Your task to perform on an android device: turn off smart reply in the gmail app Image 0: 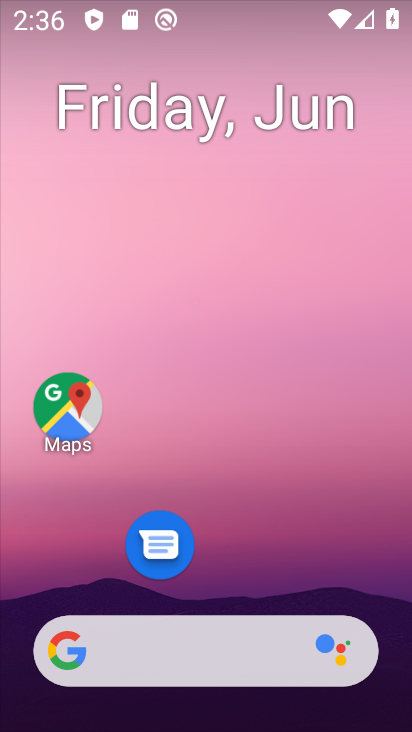
Step 0: drag from (247, 535) to (375, 58)
Your task to perform on an android device: turn off smart reply in the gmail app Image 1: 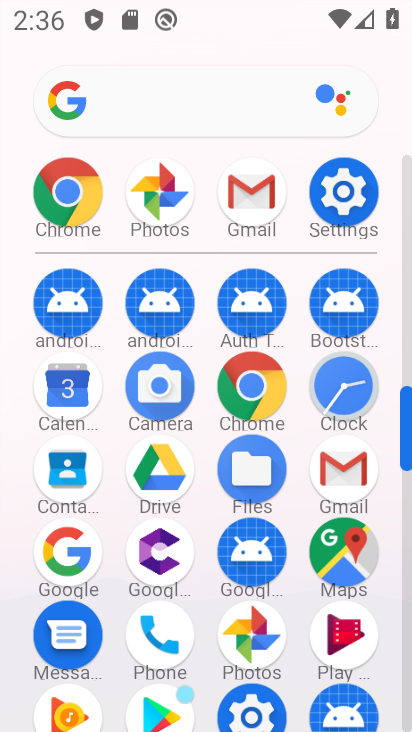
Step 1: click (339, 475)
Your task to perform on an android device: turn off smart reply in the gmail app Image 2: 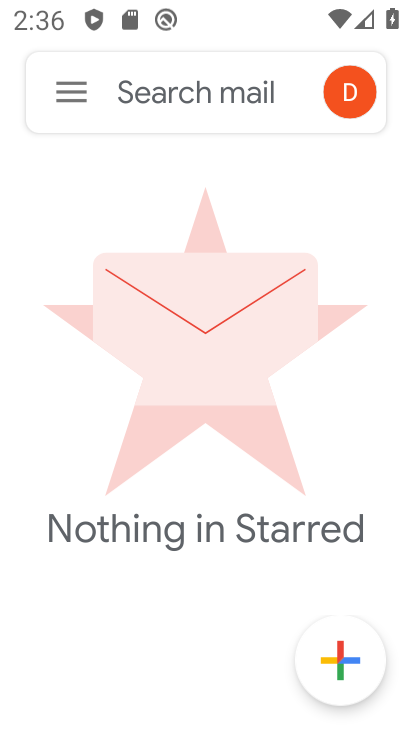
Step 2: click (58, 108)
Your task to perform on an android device: turn off smart reply in the gmail app Image 3: 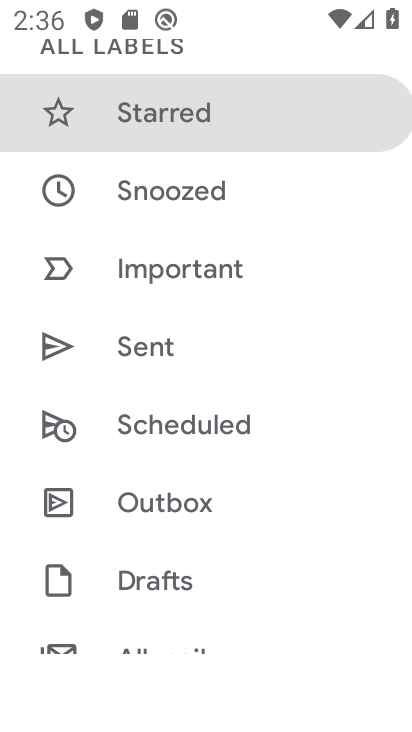
Step 3: drag from (164, 579) to (283, 26)
Your task to perform on an android device: turn off smart reply in the gmail app Image 4: 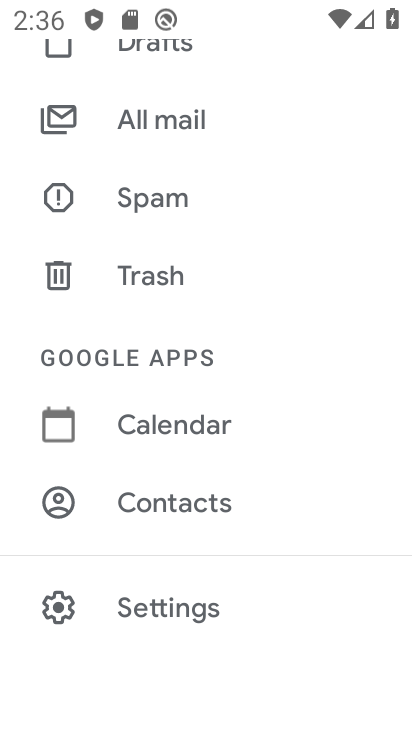
Step 4: click (145, 618)
Your task to perform on an android device: turn off smart reply in the gmail app Image 5: 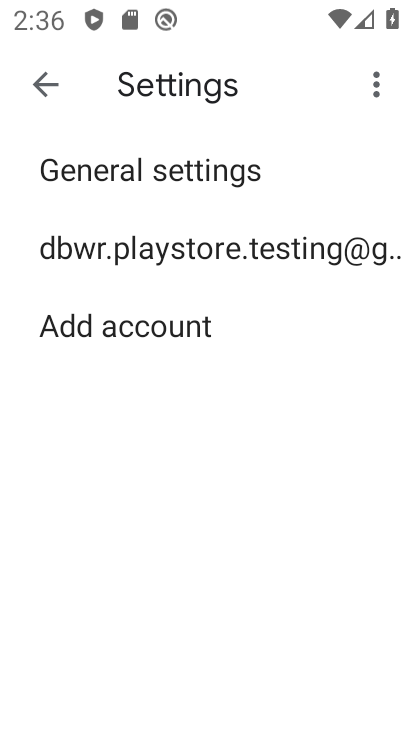
Step 5: click (220, 251)
Your task to perform on an android device: turn off smart reply in the gmail app Image 6: 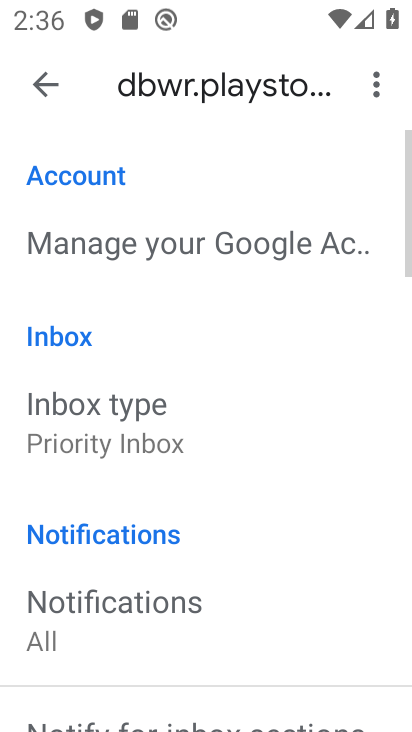
Step 6: drag from (162, 574) to (366, 2)
Your task to perform on an android device: turn off smart reply in the gmail app Image 7: 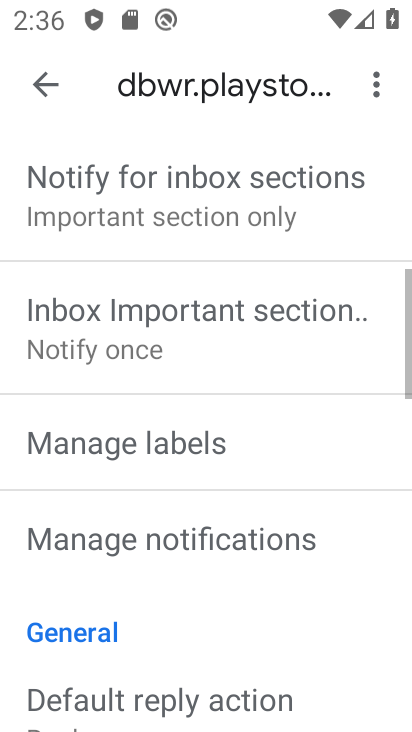
Step 7: drag from (218, 620) to (286, 4)
Your task to perform on an android device: turn off smart reply in the gmail app Image 8: 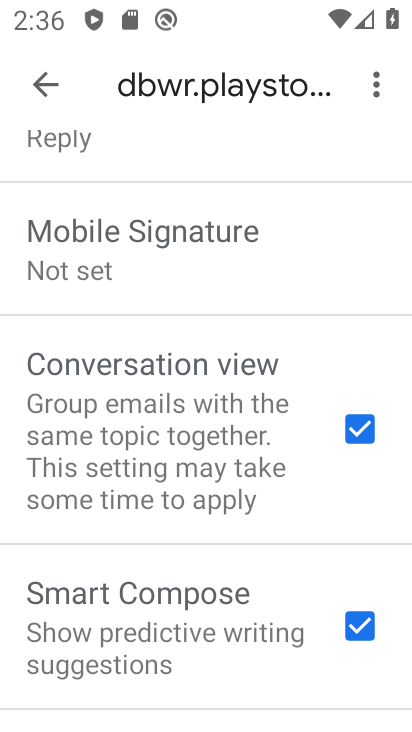
Step 8: click (328, 620)
Your task to perform on an android device: turn off smart reply in the gmail app Image 9: 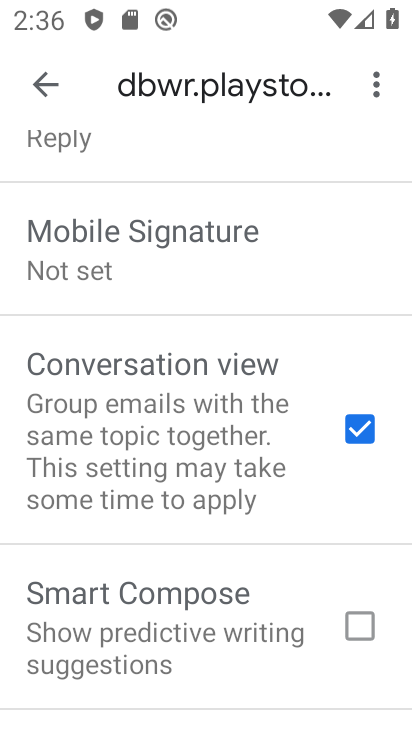
Step 9: task complete